Your task to perform on an android device: see sites visited before in the chrome app Image 0: 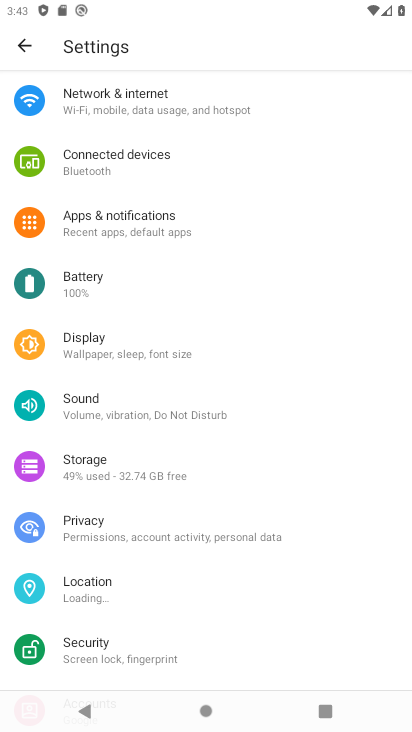
Step 0: press home button
Your task to perform on an android device: see sites visited before in the chrome app Image 1: 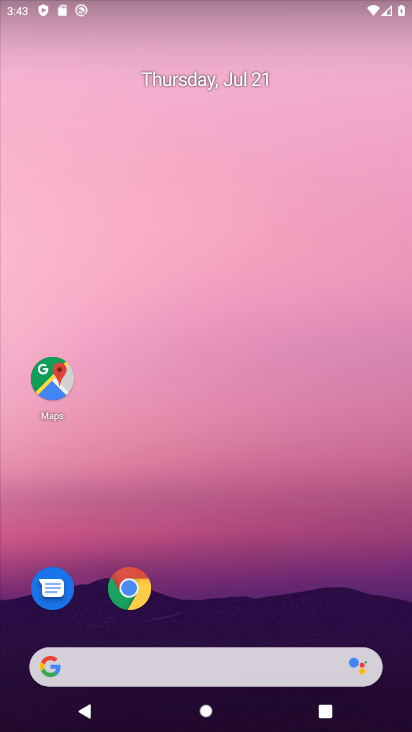
Step 1: drag from (315, 612) to (327, 115)
Your task to perform on an android device: see sites visited before in the chrome app Image 2: 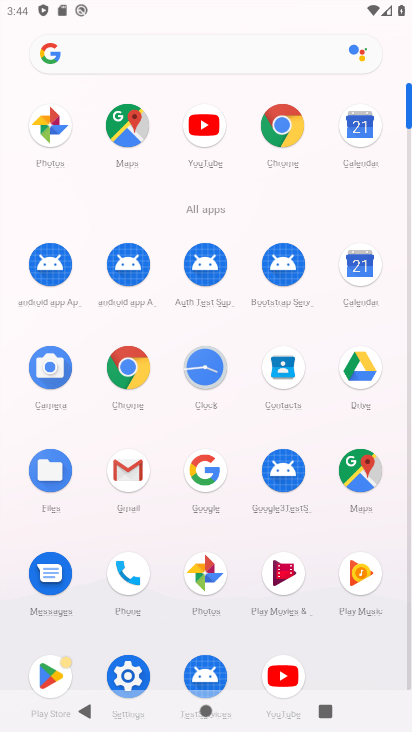
Step 2: click (134, 372)
Your task to perform on an android device: see sites visited before in the chrome app Image 3: 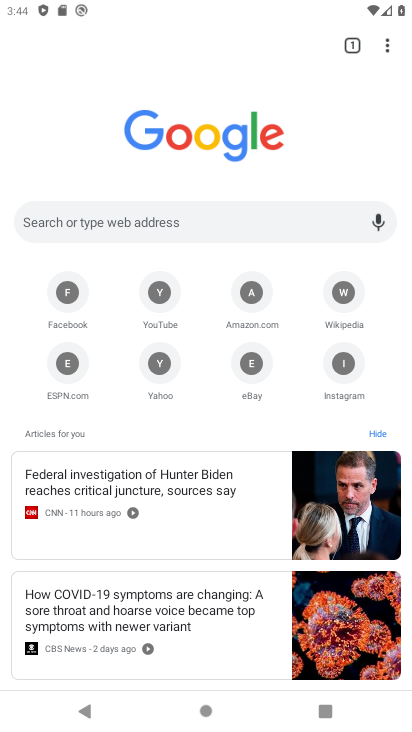
Step 3: drag from (387, 48) to (224, 258)
Your task to perform on an android device: see sites visited before in the chrome app Image 4: 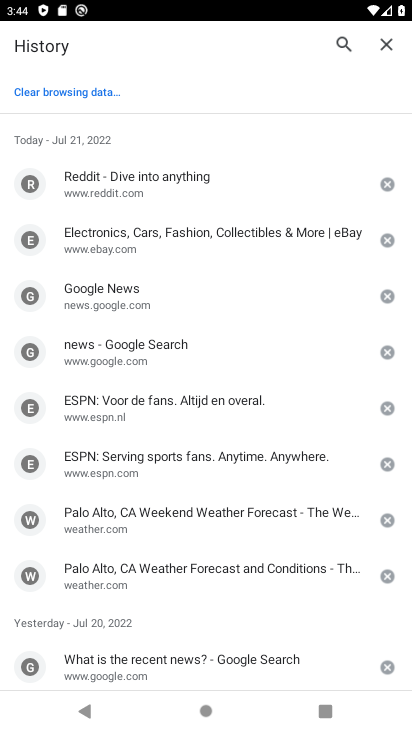
Step 4: click (177, 232)
Your task to perform on an android device: see sites visited before in the chrome app Image 5: 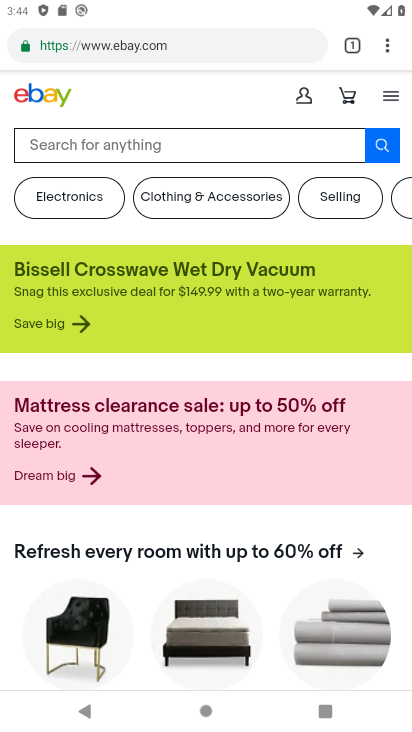
Step 5: task complete